Your task to perform on an android device: Is it going to rain today? Image 0: 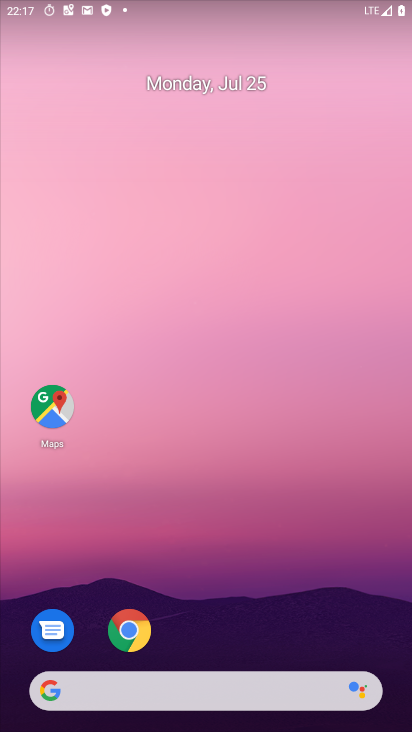
Step 0: press home button
Your task to perform on an android device: Is it going to rain today? Image 1: 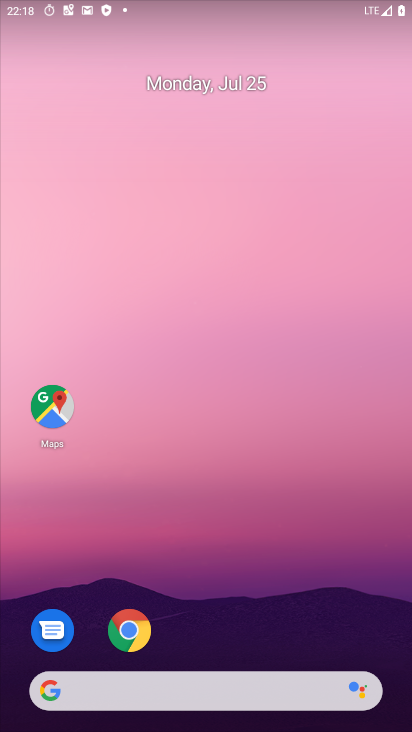
Step 1: click (41, 690)
Your task to perform on an android device: Is it going to rain today? Image 2: 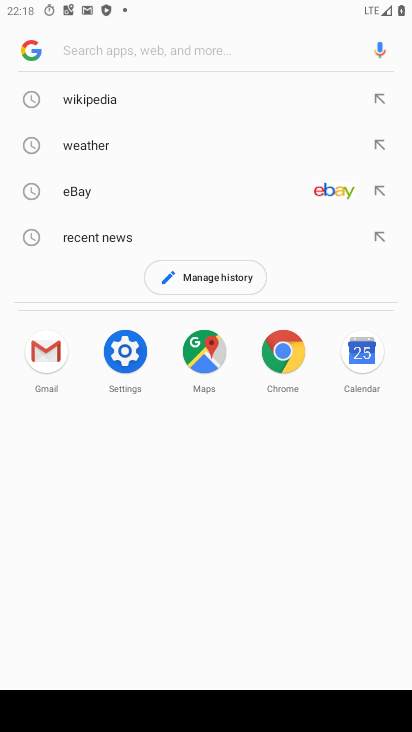
Step 2: type "Is it going to rain today?"
Your task to perform on an android device: Is it going to rain today? Image 3: 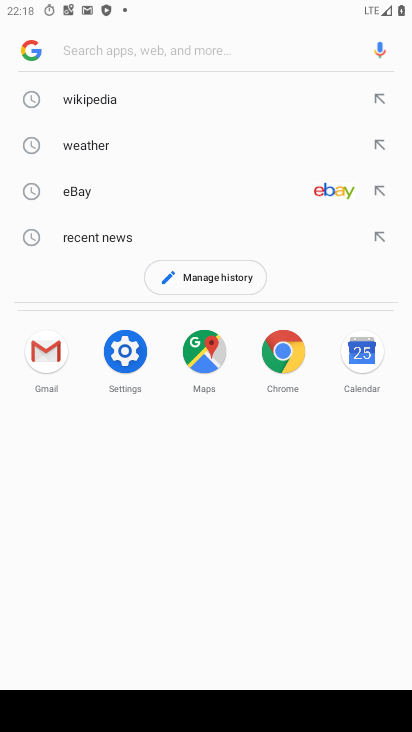
Step 3: click (94, 46)
Your task to perform on an android device: Is it going to rain today? Image 4: 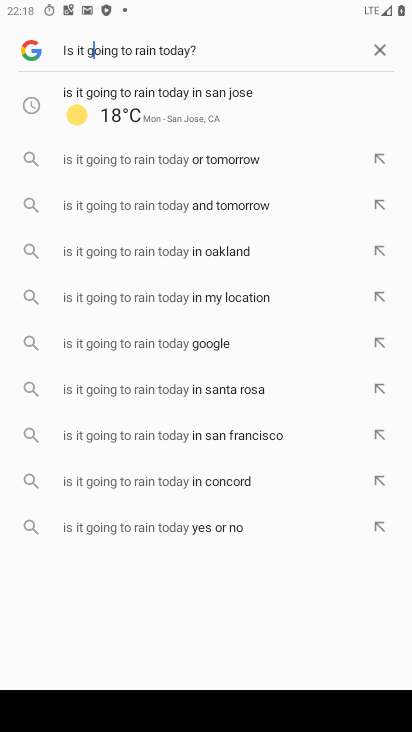
Step 4: press enter
Your task to perform on an android device: Is it going to rain today? Image 5: 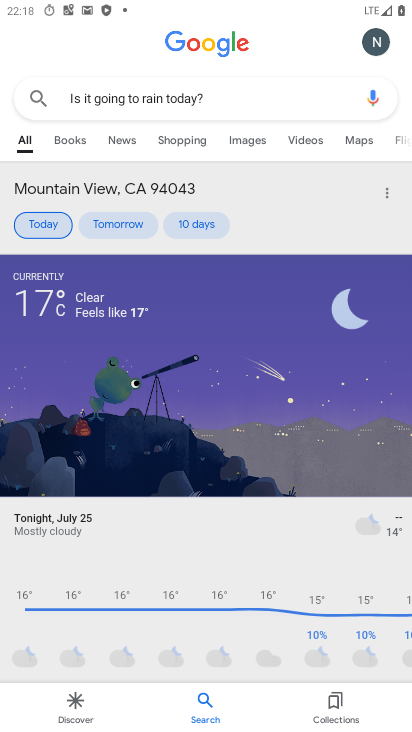
Step 5: task complete